Your task to perform on an android device: Go to eBay Image 0: 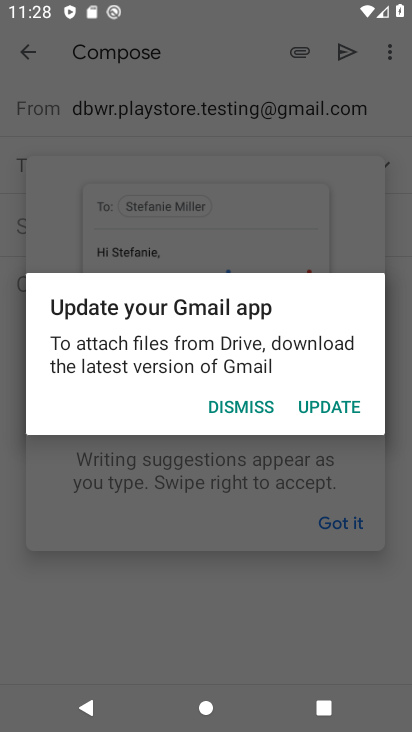
Step 0: press home button
Your task to perform on an android device: Go to eBay Image 1: 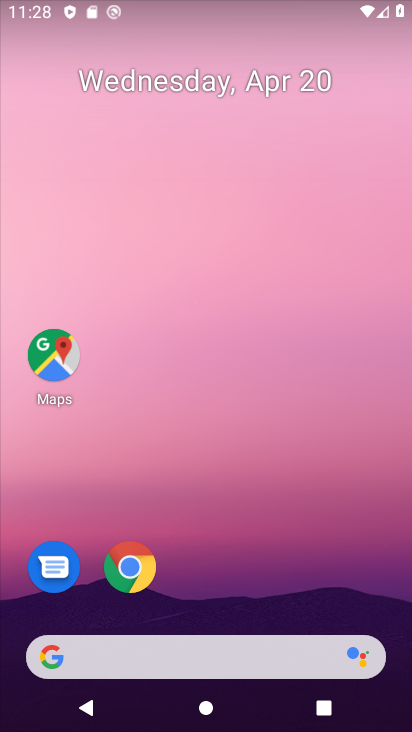
Step 1: drag from (183, 613) to (245, 280)
Your task to perform on an android device: Go to eBay Image 2: 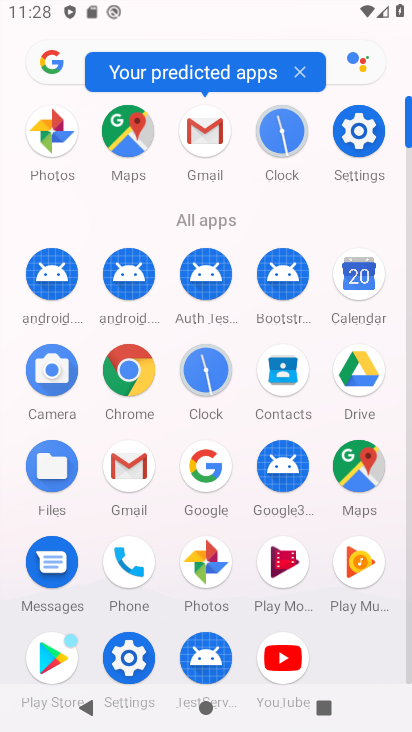
Step 2: click (127, 371)
Your task to perform on an android device: Go to eBay Image 3: 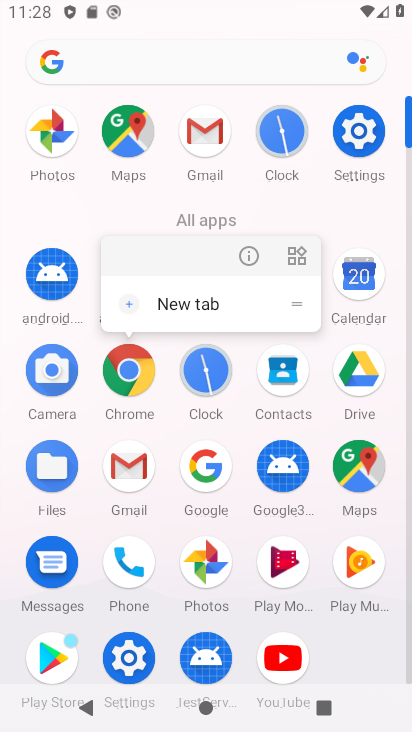
Step 3: click (135, 380)
Your task to perform on an android device: Go to eBay Image 4: 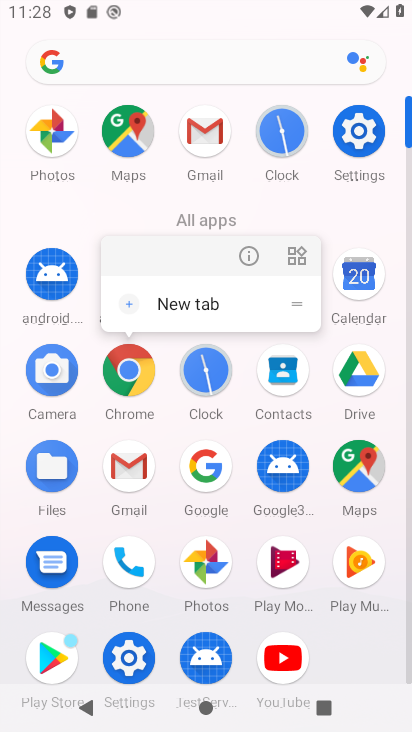
Step 4: click (130, 367)
Your task to perform on an android device: Go to eBay Image 5: 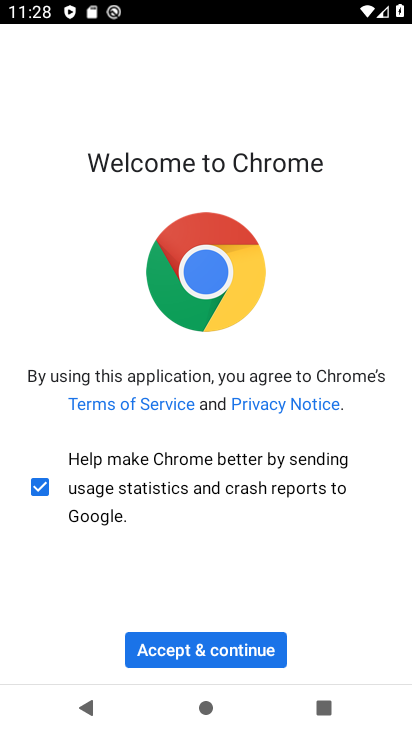
Step 5: click (196, 653)
Your task to perform on an android device: Go to eBay Image 6: 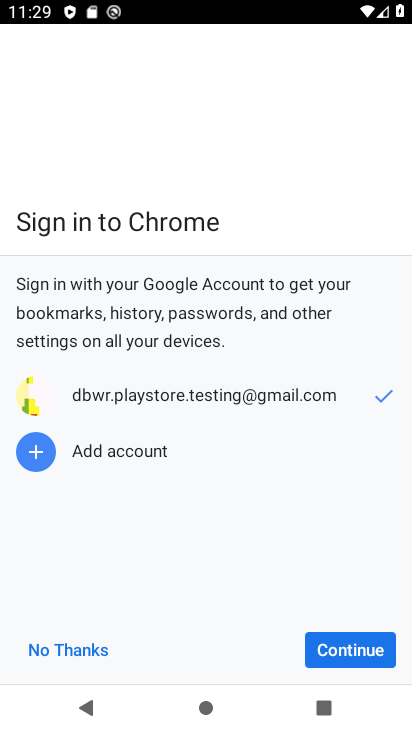
Step 6: click (325, 653)
Your task to perform on an android device: Go to eBay Image 7: 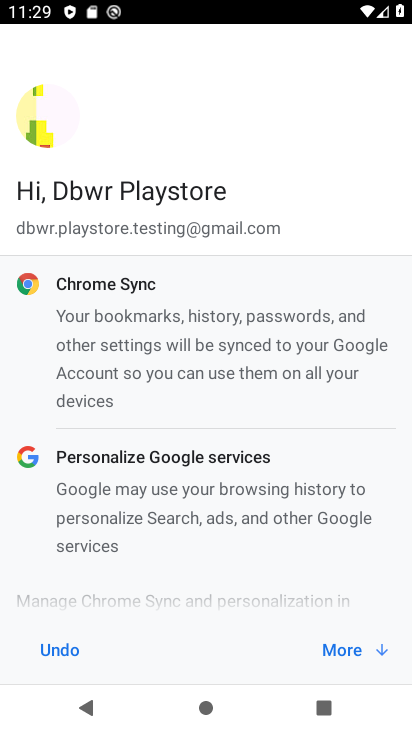
Step 7: click (321, 648)
Your task to perform on an android device: Go to eBay Image 8: 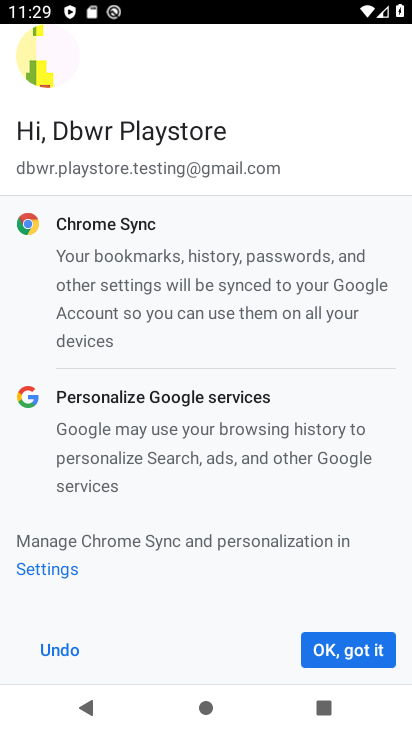
Step 8: click (321, 648)
Your task to perform on an android device: Go to eBay Image 9: 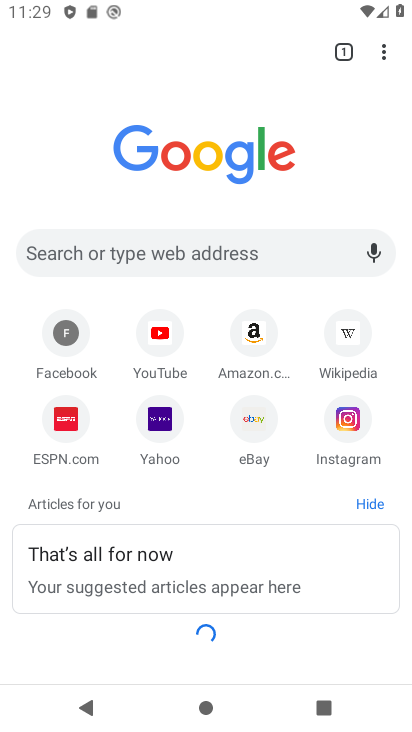
Step 9: click (251, 433)
Your task to perform on an android device: Go to eBay Image 10: 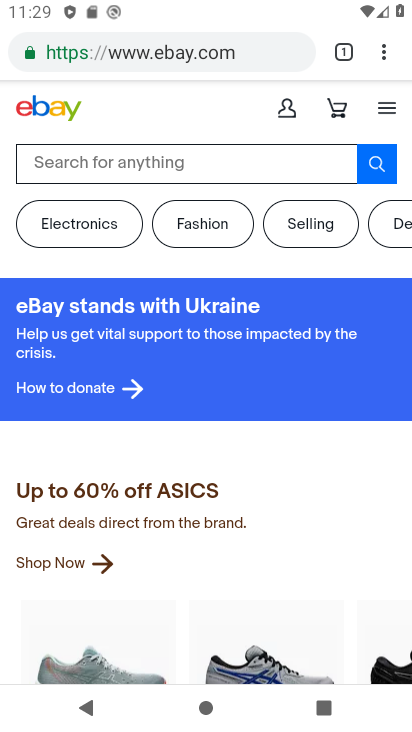
Step 10: task complete